Your task to perform on an android device: Open Chrome and go to settings Image 0: 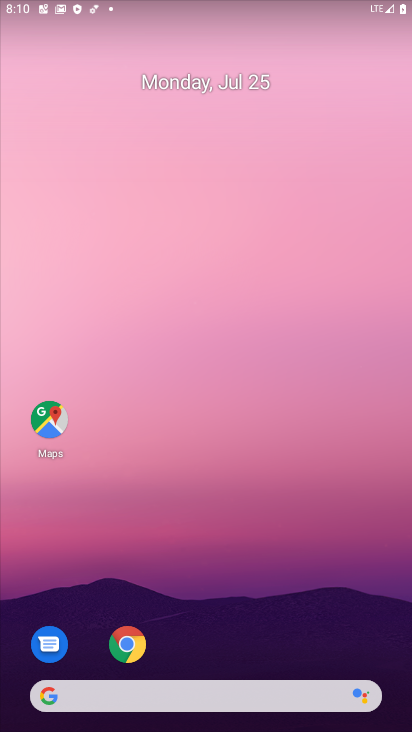
Step 0: drag from (285, 610) to (267, 209)
Your task to perform on an android device: Open Chrome and go to settings Image 1: 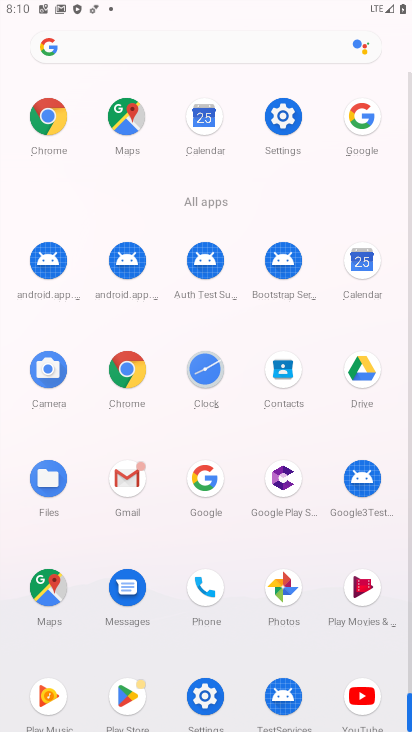
Step 1: click (122, 389)
Your task to perform on an android device: Open Chrome and go to settings Image 2: 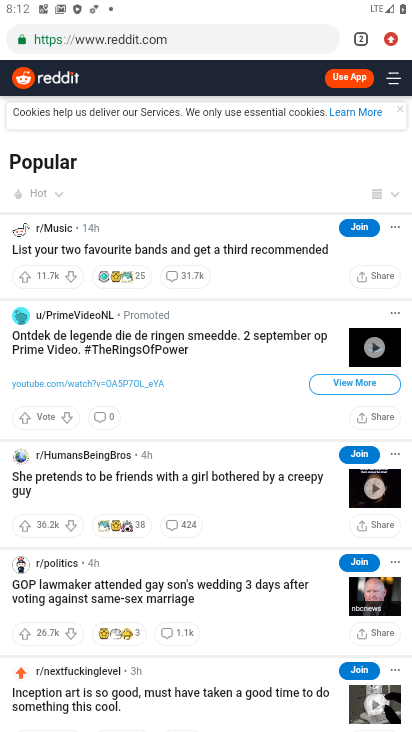
Step 2: click (392, 44)
Your task to perform on an android device: Open Chrome and go to settings Image 3: 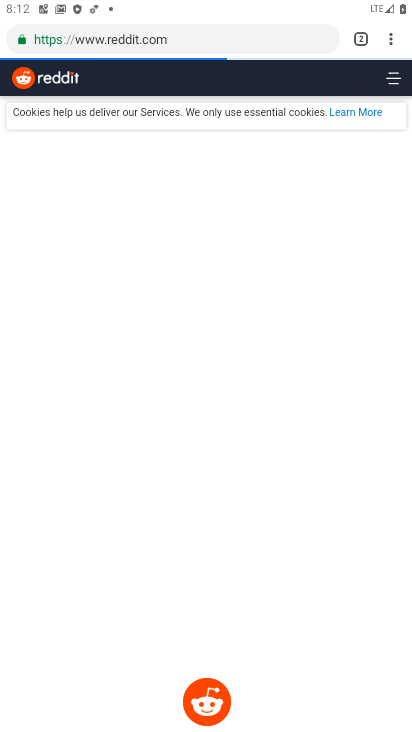
Step 3: click (397, 37)
Your task to perform on an android device: Open Chrome and go to settings Image 4: 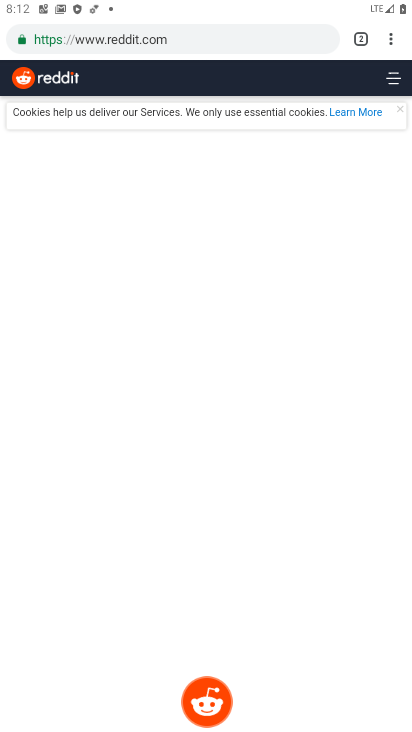
Step 4: click (392, 41)
Your task to perform on an android device: Open Chrome and go to settings Image 5: 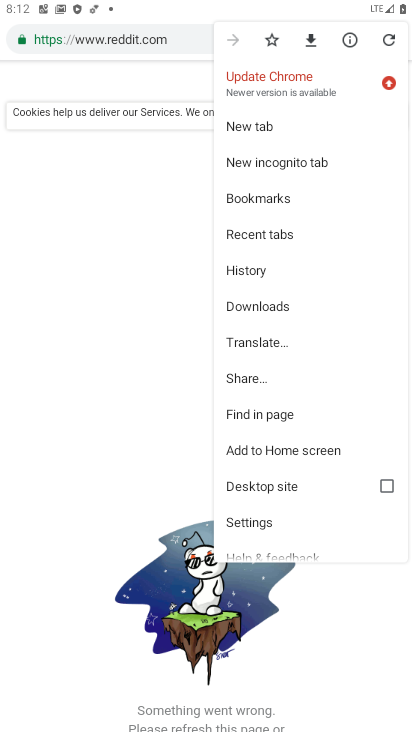
Step 5: click (267, 523)
Your task to perform on an android device: Open Chrome and go to settings Image 6: 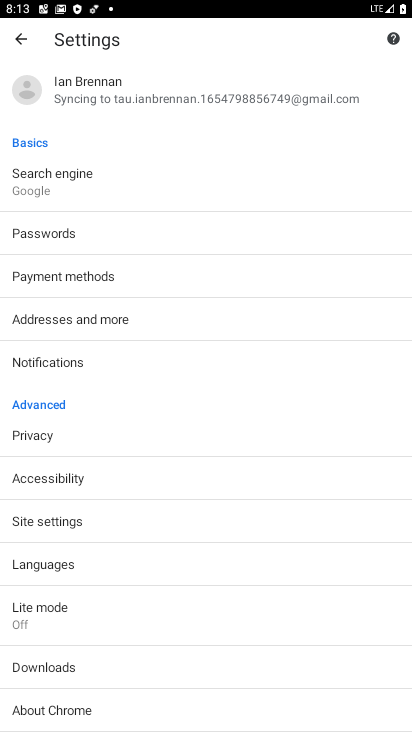
Step 6: task complete